Your task to perform on an android device: Go to display settings Image 0: 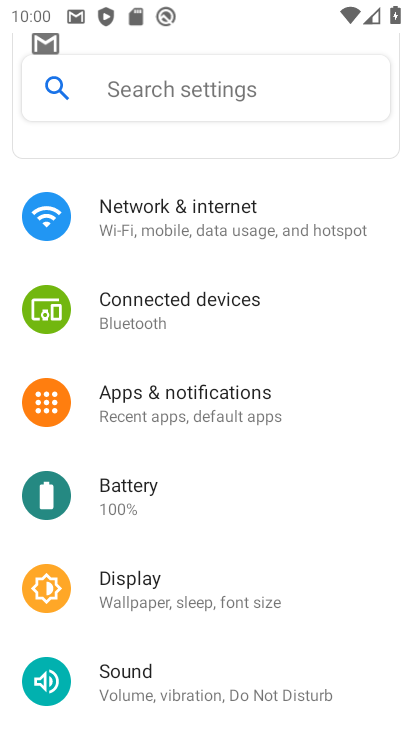
Step 0: click (123, 573)
Your task to perform on an android device: Go to display settings Image 1: 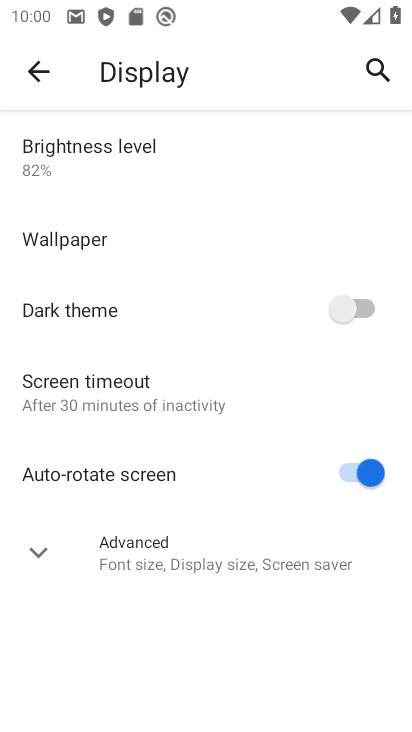
Step 1: task complete